Your task to perform on an android device: empty trash in google photos Image 0: 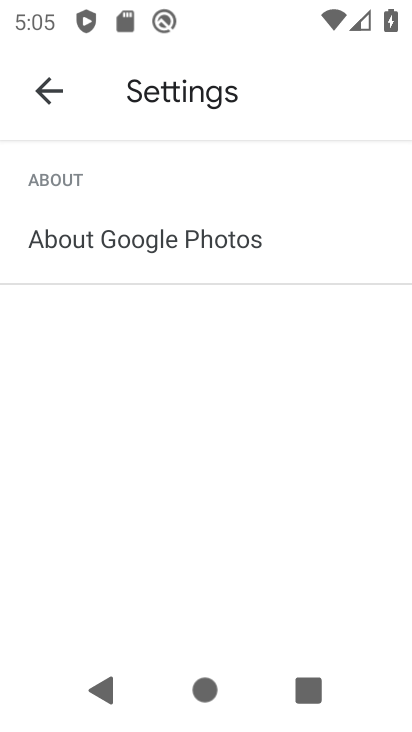
Step 0: press home button
Your task to perform on an android device: empty trash in google photos Image 1: 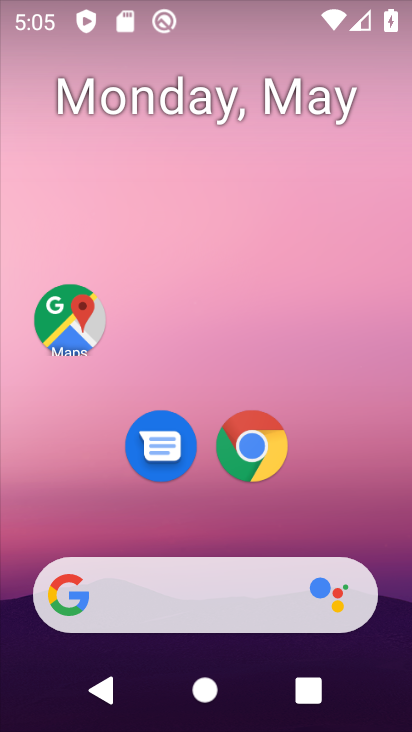
Step 1: drag from (322, 479) to (212, 81)
Your task to perform on an android device: empty trash in google photos Image 2: 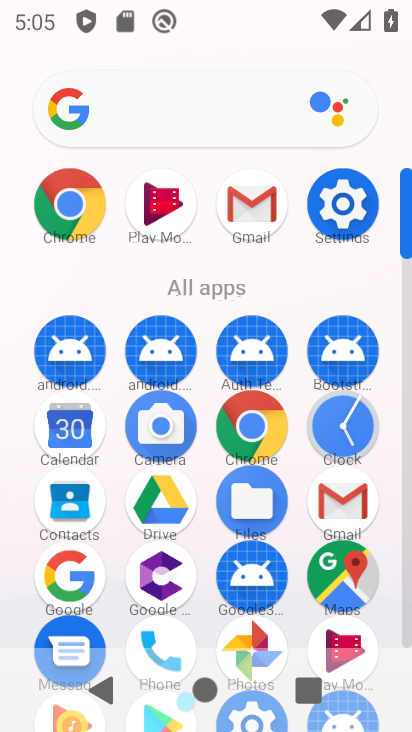
Step 2: click (240, 652)
Your task to perform on an android device: empty trash in google photos Image 3: 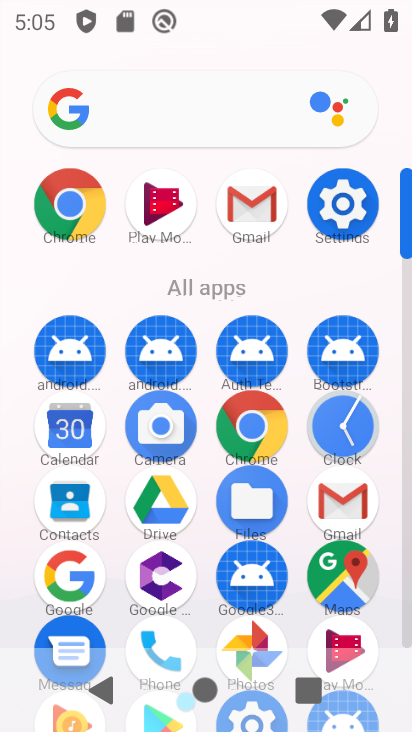
Step 3: click (251, 638)
Your task to perform on an android device: empty trash in google photos Image 4: 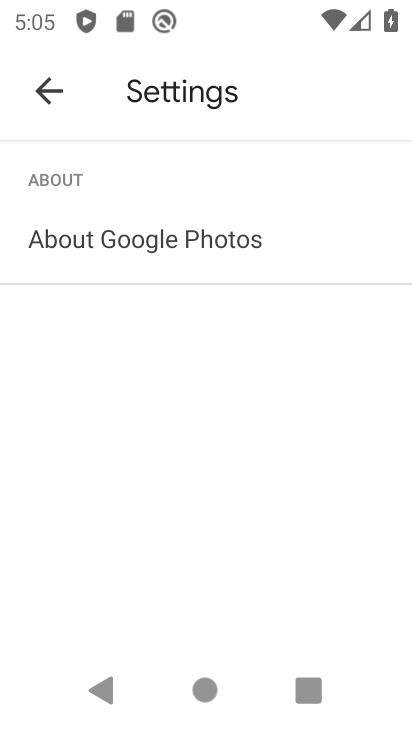
Step 4: click (47, 62)
Your task to perform on an android device: empty trash in google photos Image 5: 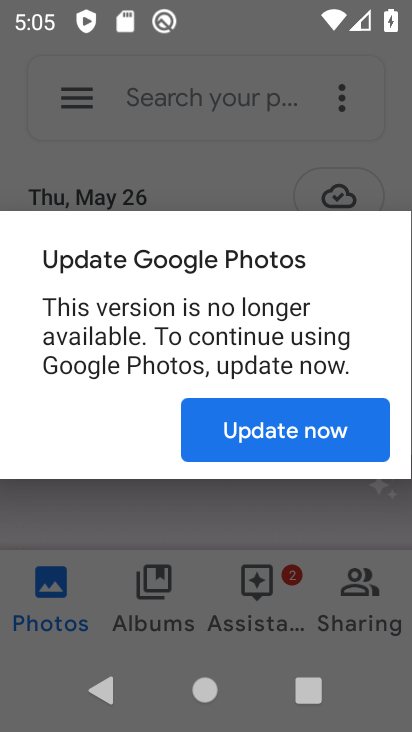
Step 5: click (249, 420)
Your task to perform on an android device: empty trash in google photos Image 6: 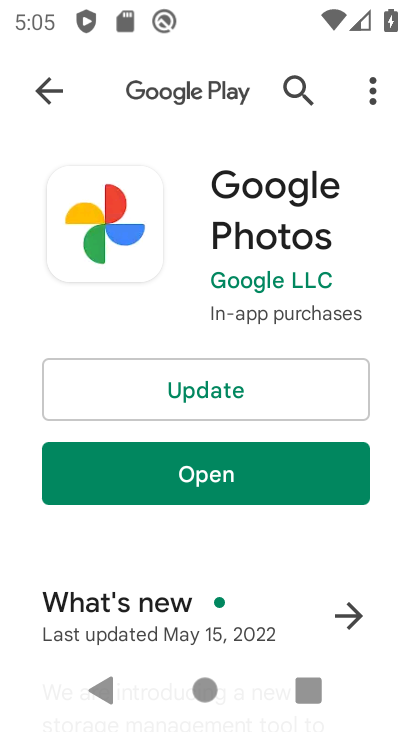
Step 6: click (211, 394)
Your task to perform on an android device: empty trash in google photos Image 7: 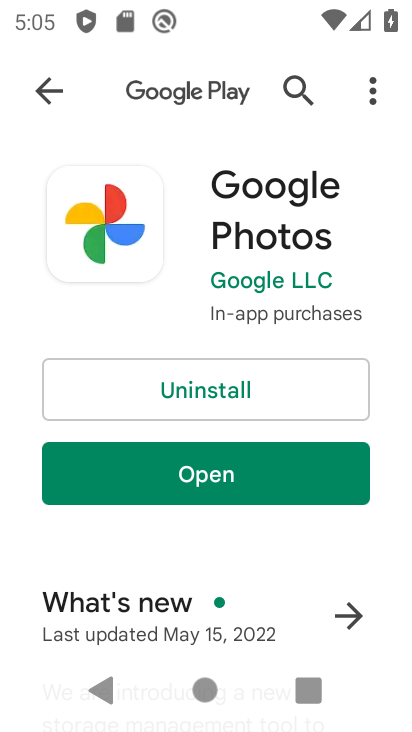
Step 7: click (227, 467)
Your task to perform on an android device: empty trash in google photos Image 8: 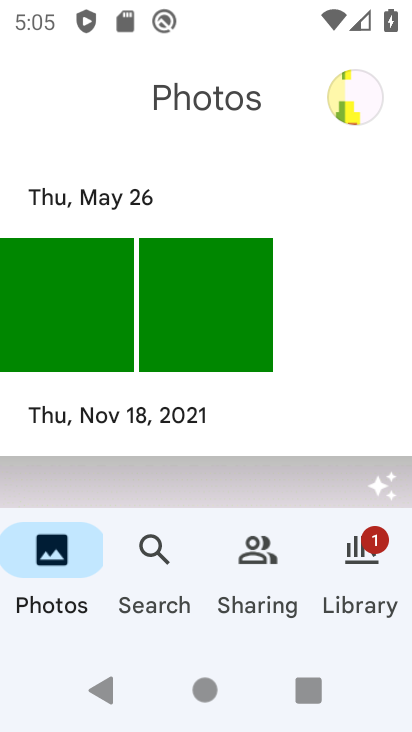
Step 8: click (337, 568)
Your task to perform on an android device: empty trash in google photos Image 9: 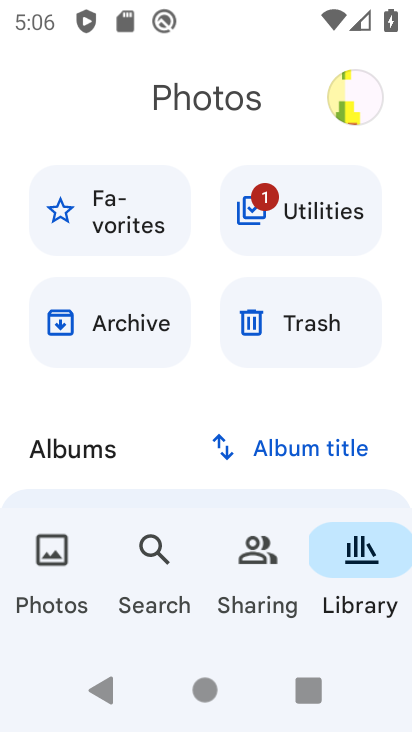
Step 9: click (304, 330)
Your task to perform on an android device: empty trash in google photos Image 10: 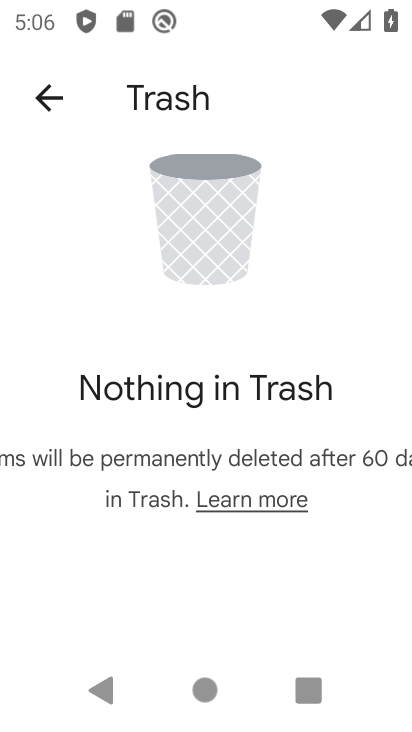
Step 10: task complete